Your task to perform on an android device: turn smart compose on in the gmail app Image 0: 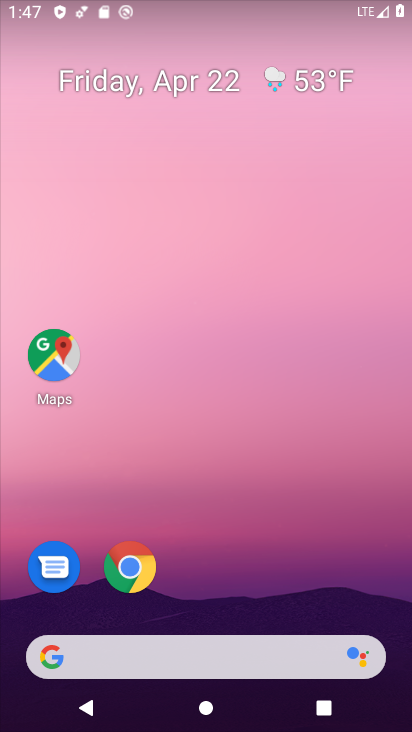
Step 0: drag from (389, 611) to (295, 148)
Your task to perform on an android device: turn smart compose on in the gmail app Image 1: 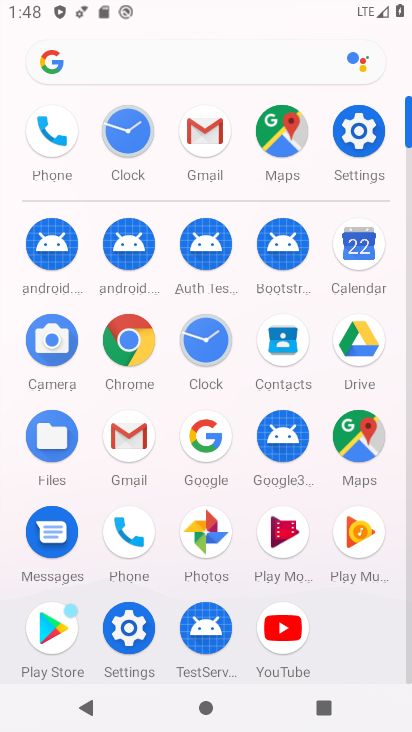
Step 1: click (126, 440)
Your task to perform on an android device: turn smart compose on in the gmail app Image 2: 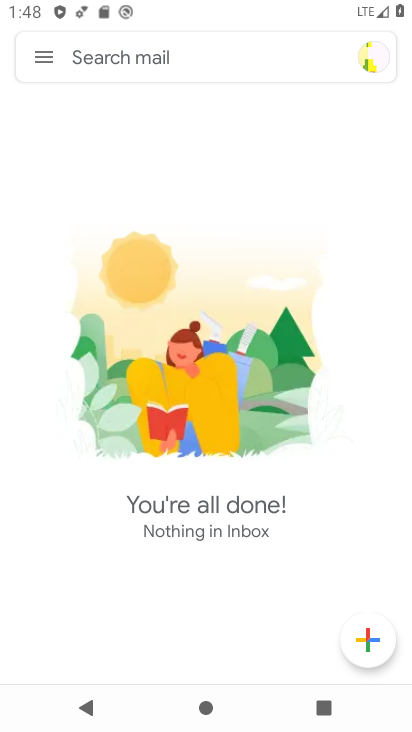
Step 2: click (40, 62)
Your task to perform on an android device: turn smart compose on in the gmail app Image 3: 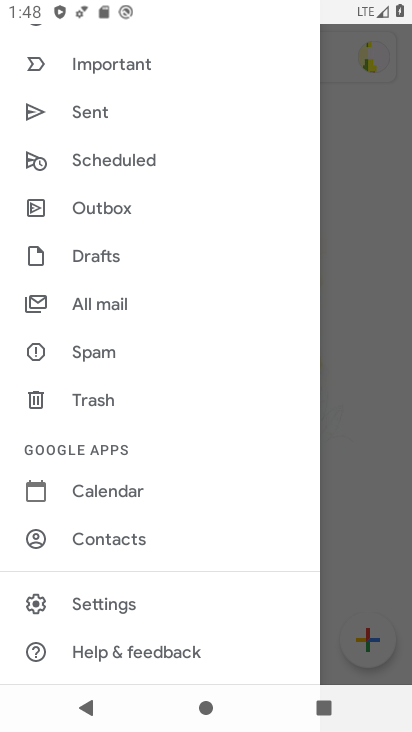
Step 3: click (111, 601)
Your task to perform on an android device: turn smart compose on in the gmail app Image 4: 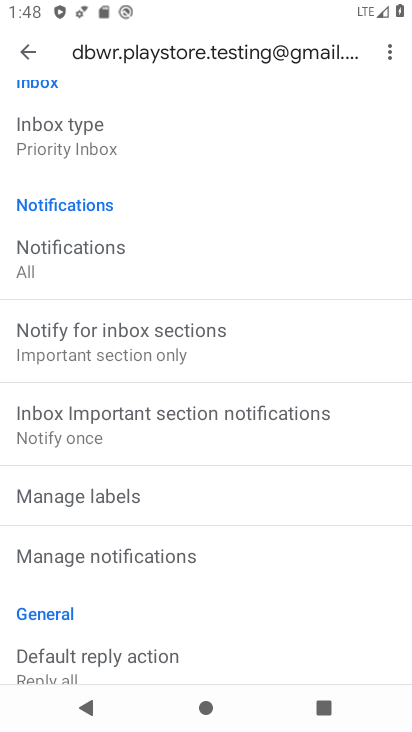
Step 4: task complete